Your task to perform on an android device: Open Reddit.com Image 0: 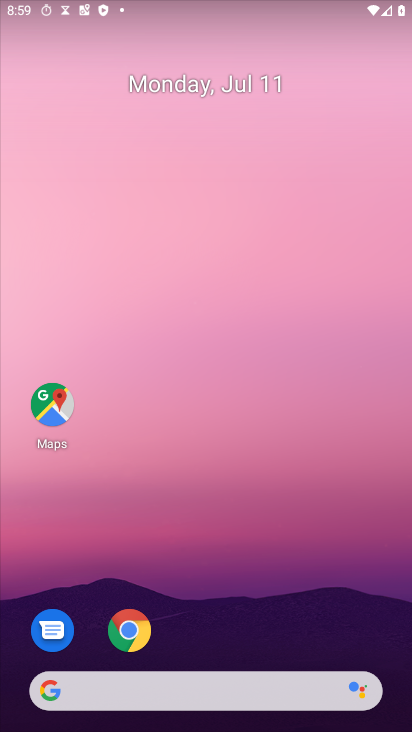
Step 0: press home button
Your task to perform on an android device: Open Reddit.com Image 1: 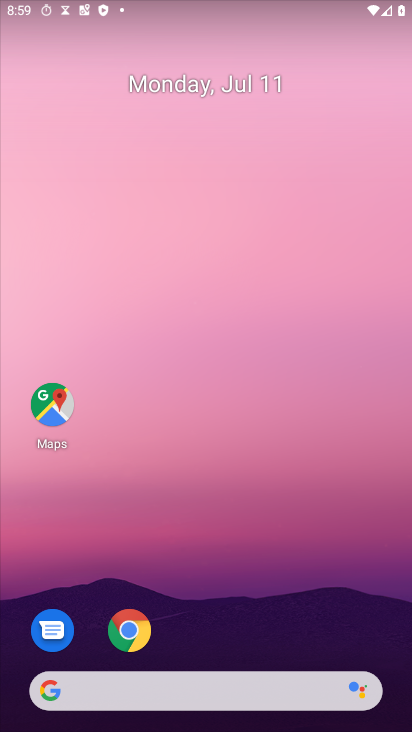
Step 1: click (125, 623)
Your task to perform on an android device: Open Reddit.com Image 2: 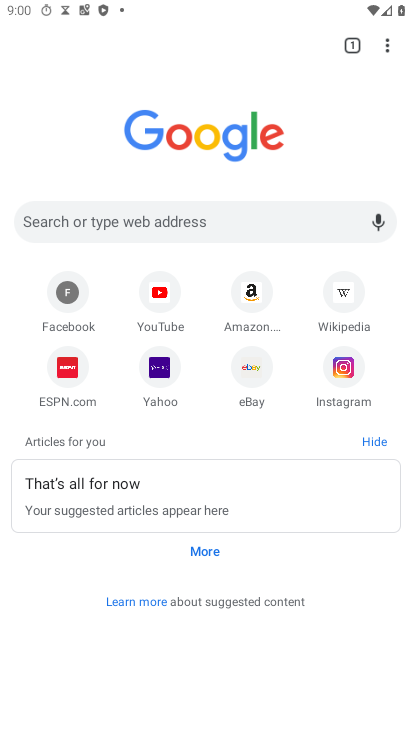
Step 2: click (136, 214)
Your task to perform on an android device: Open Reddit.com Image 3: 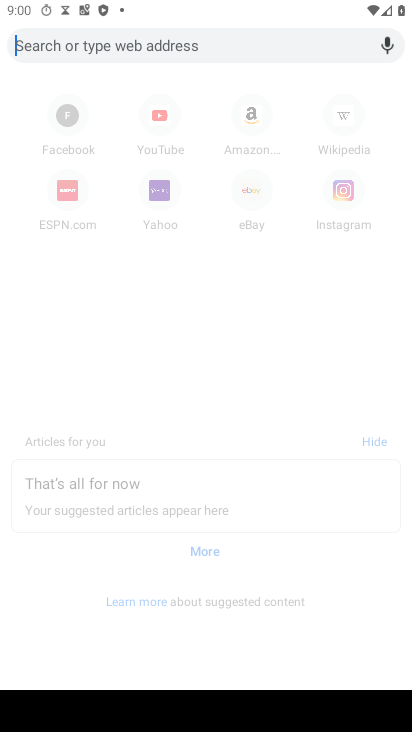
Step 3: type "reddit.com"
Your task to perform on an android device: Open Reddit.com Image 4: 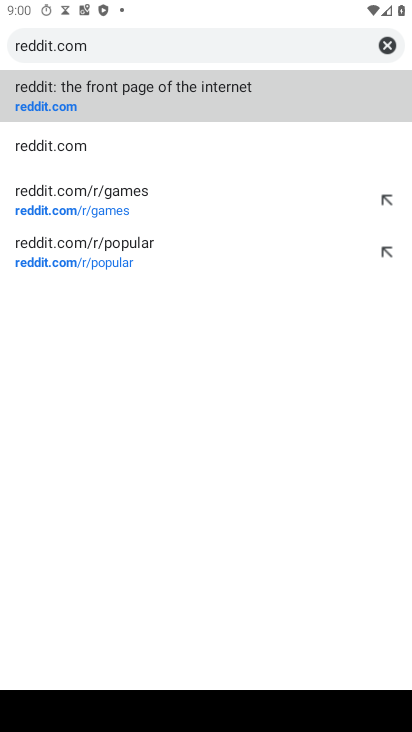
Step 4: click (93, 139)
Your task to perform on an android device: Open Reddit.com Image 5: 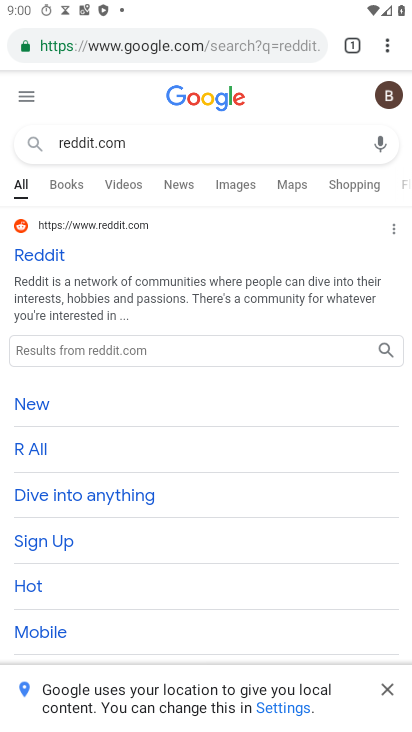
Step 5: click (47, 254)
Your task to perform on an android device: Open Reddit.com Image 6: 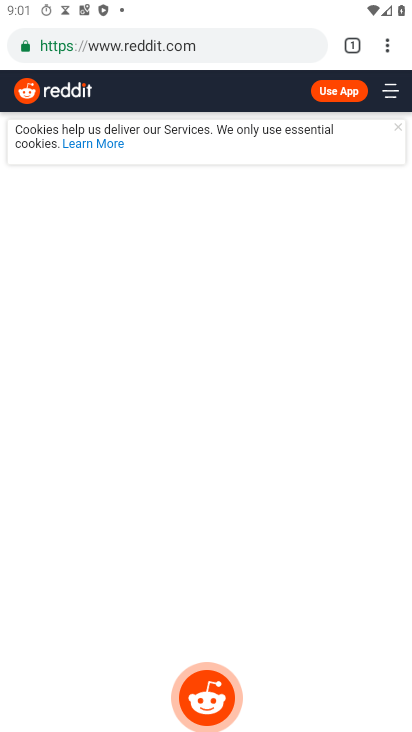
Step 6: task complete